Your task to perform on an android device: open app "DoorDash - Dasher" Image 0: 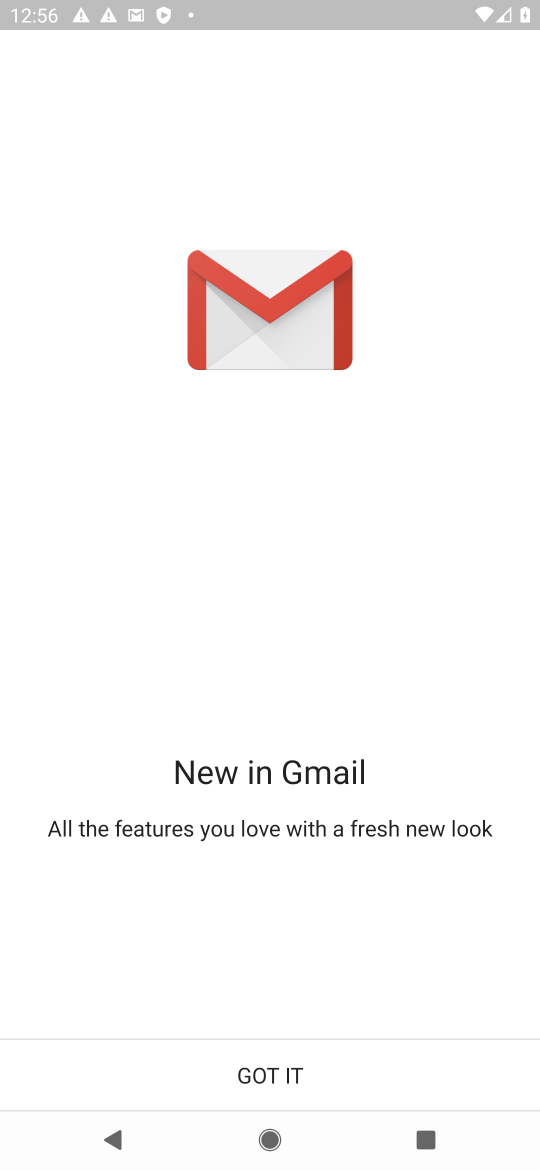
Step 0: press home button
Your task to perform on an android device: open app "DoorDash - Dasher" Image 1: 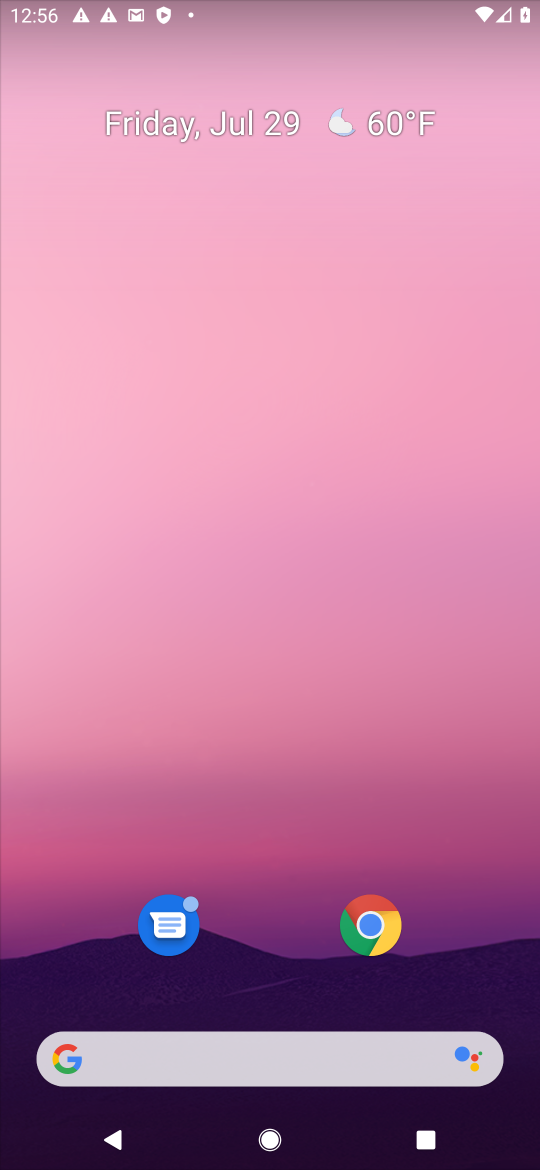
Step 1: drag from (244, 1052) to (223, 16)
Your task to perform on an android device: open app "DoorDash - Dasher" Image 2: 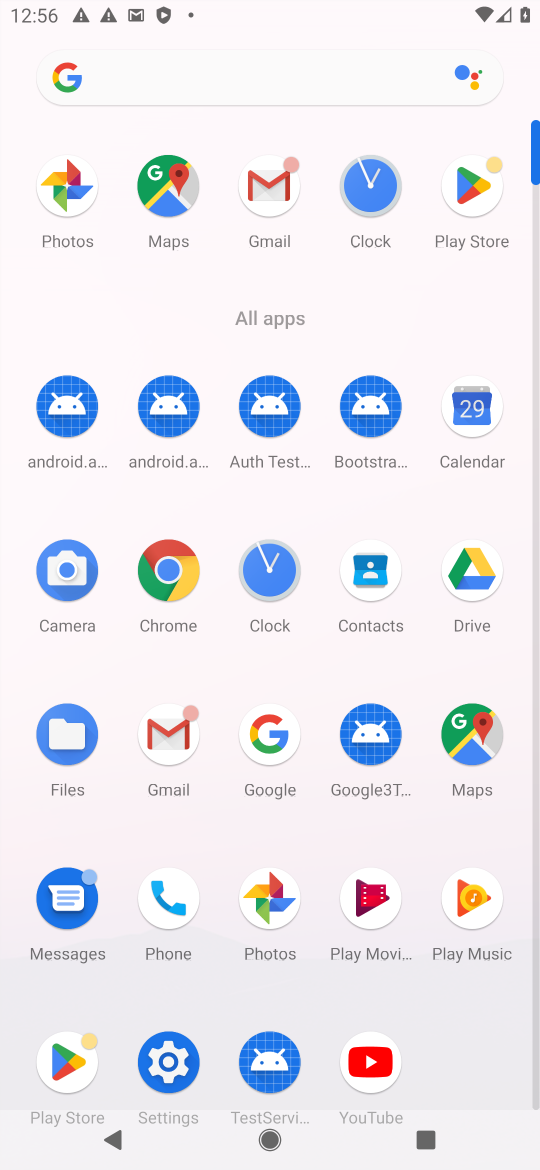
Step 2: click (58, 1076)
Your task to perform on an android device: open app "DoorDash - Dasher" Image 3: 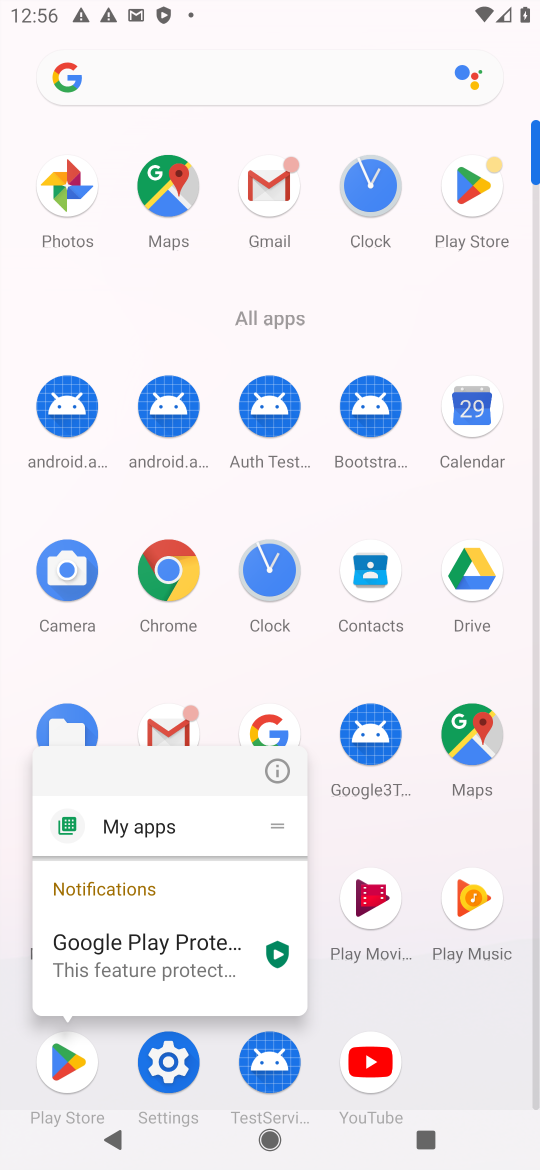
Step 3: click (75, 1056)
Your task to perform on an android device: open app "DoorDash - Dasher" Image 4: 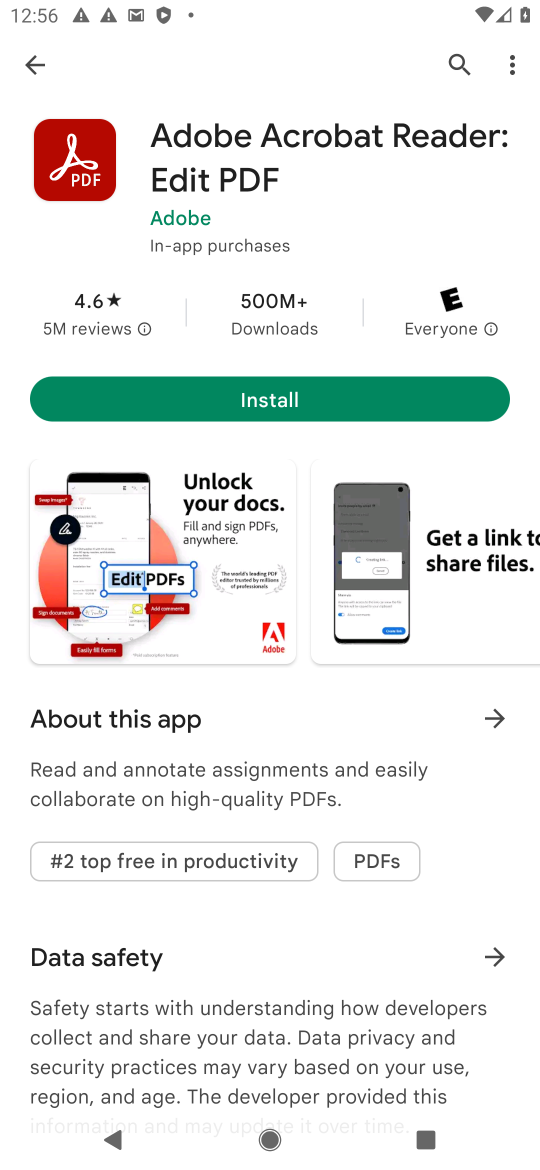
Step 4: click (466, 54)
Your task to perform on an android device: open app "DoorDash - Dasher" Image 5: 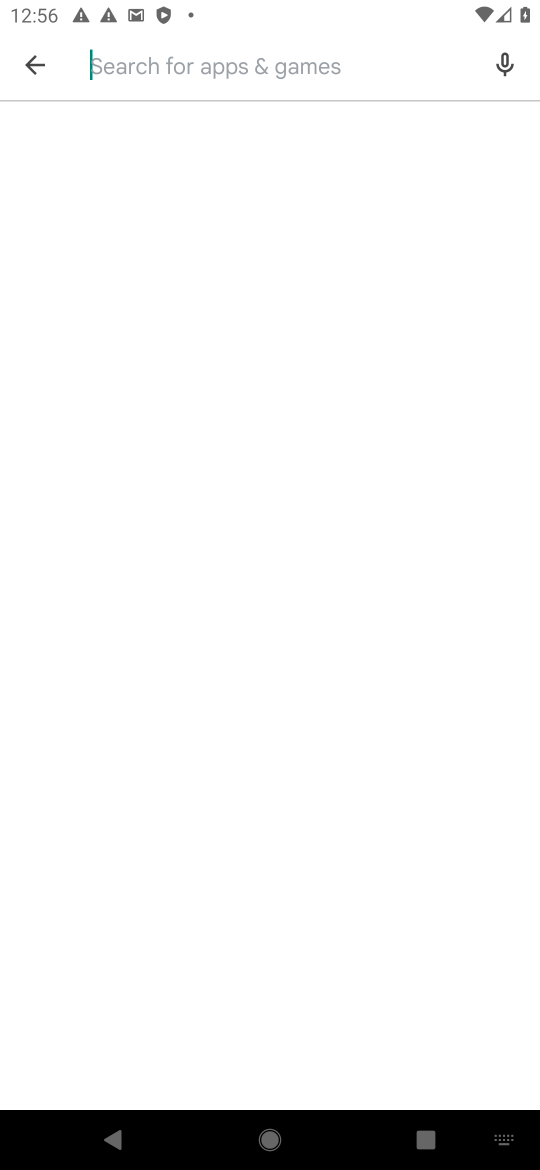
Step 5: type "doordash - dasher"
Your task to perform on an android device: open app "DoorDash - Dasher" Image 6: 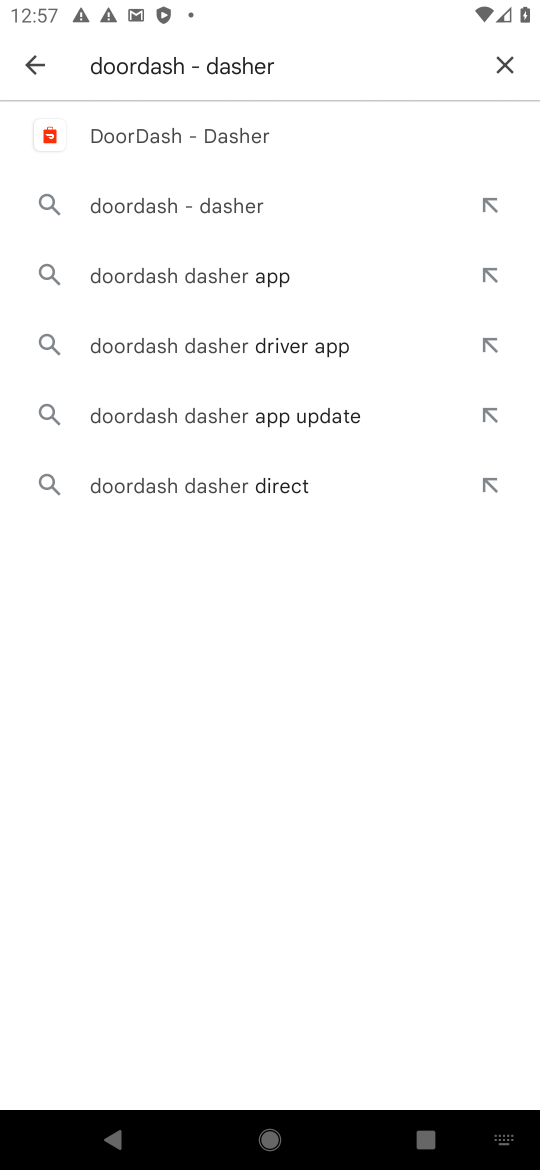
Step 6: click (267, 147)
Your task to perform on an android device: open app "DoorDash - Dasher" Image 7: 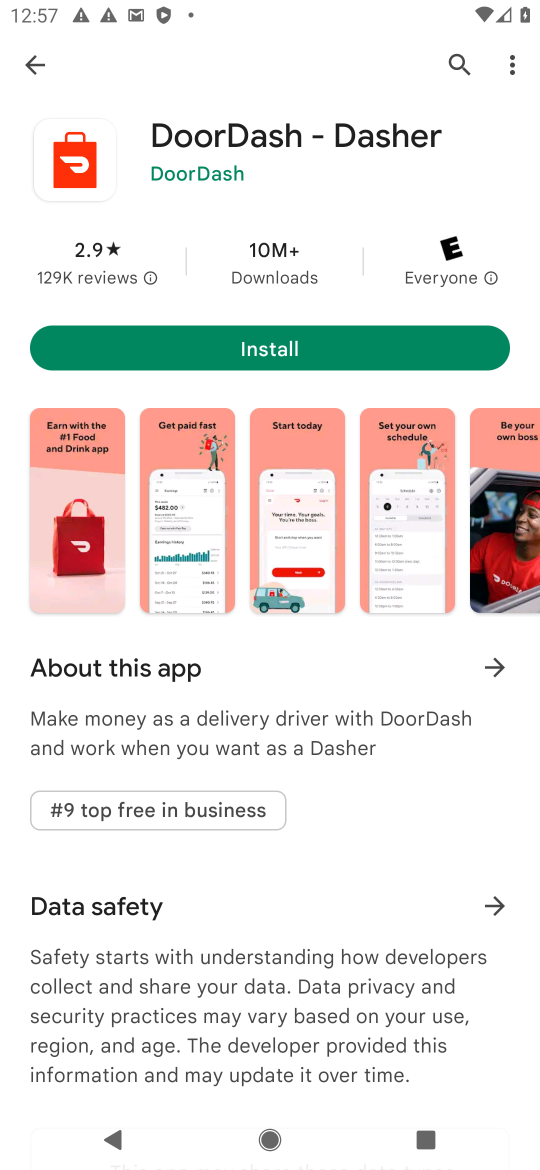
Step 7: task complete